Your task to perform on an android device: add a label to a message in the gmail app Image 0: 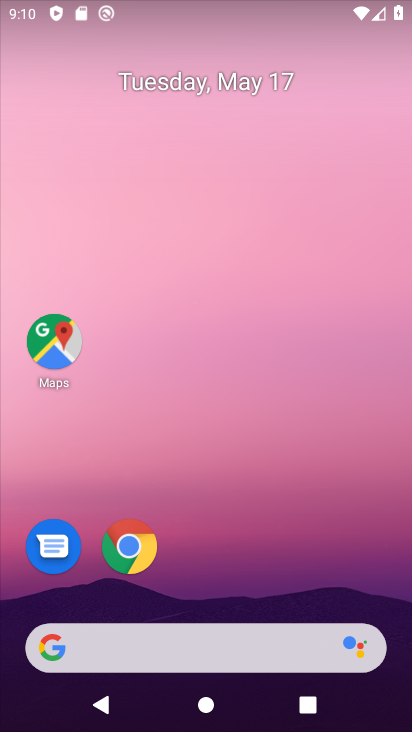
Step 0: drag from (222, 603) to (266, 31)
Your task to perform on an android device: add a label to a message in the gmail app Image 1: 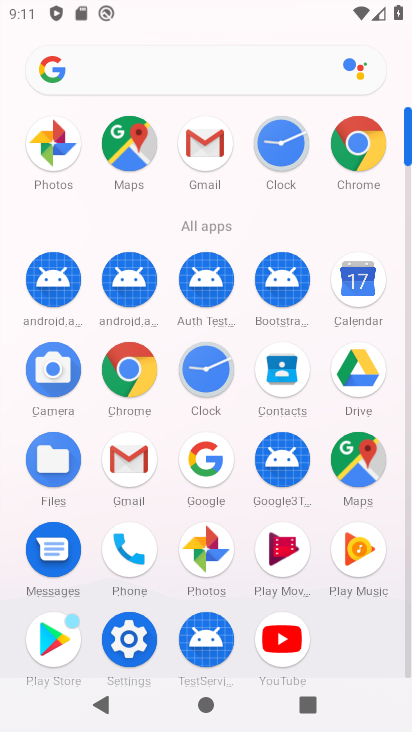
Step 1: click (127, 463)
Your task to perform on an android device: add a label to a message in the gmail app Image 2: 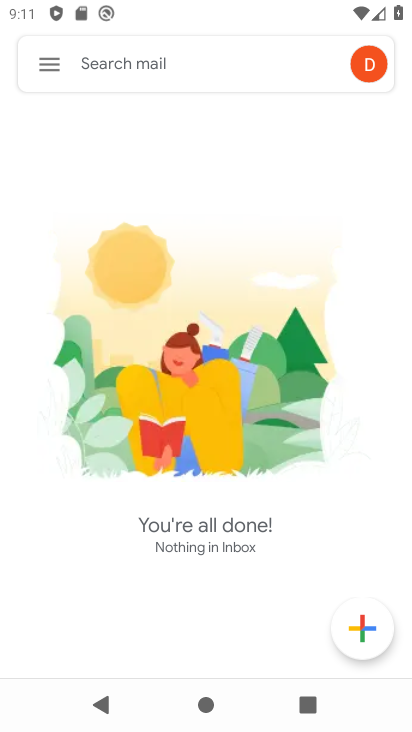
Step 2: click (46, 63)
Your task to perform on an android device: add a label to a message in the gmail app Image 3: 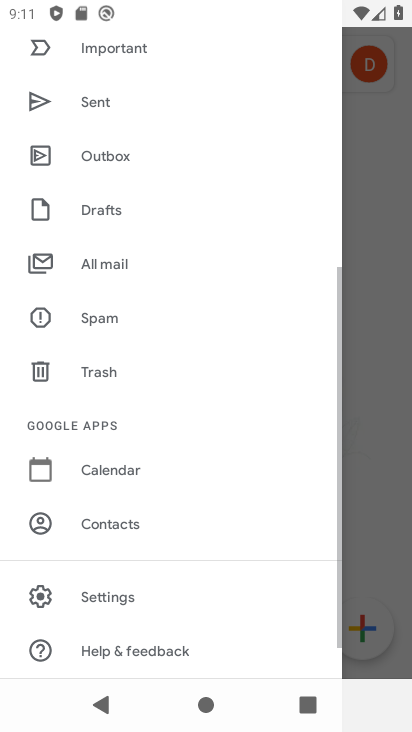
Step 3: click (82, 259)
Your task to perform on an android device: add a label to a message in the gmail app Image 4: 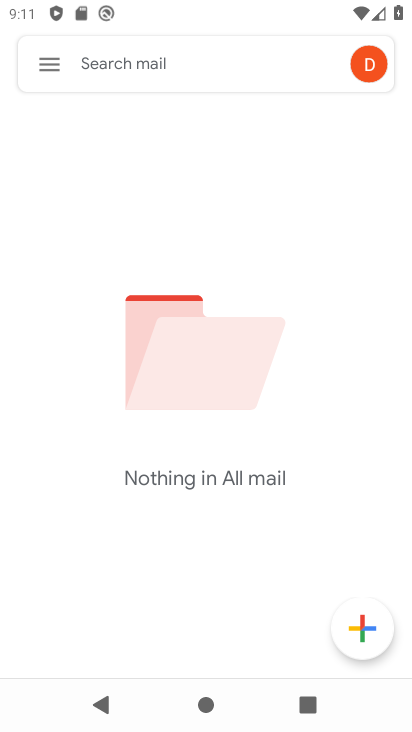
Step 4: task complete